Your task to perform on an android device: Go to display settings Image 0: 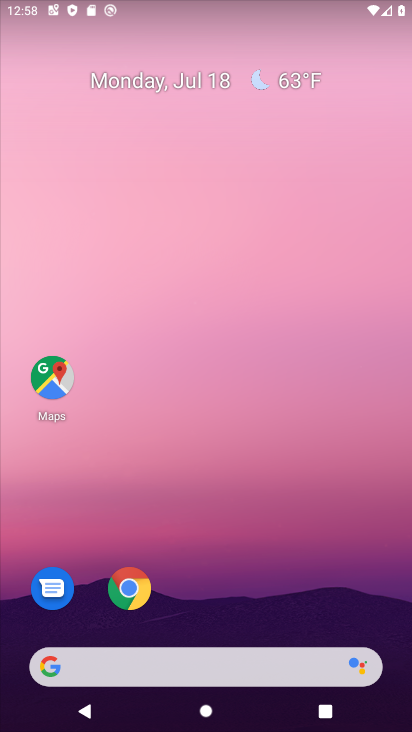
Step 0: drag from (325, 578) to (166, 97)
Your task to perform on an android device: Go to display settings Image 1: 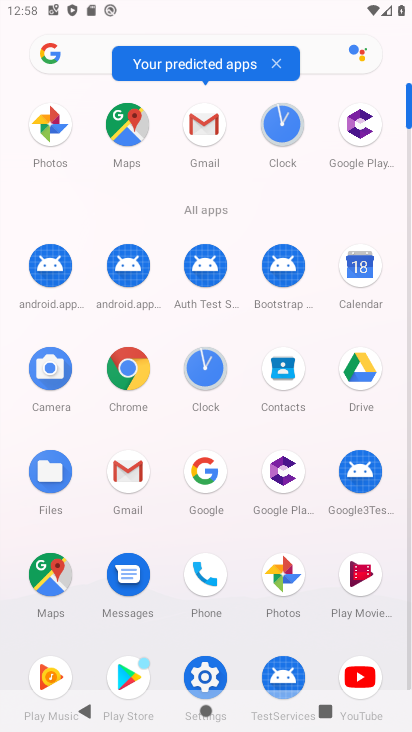
Step 1: click (202, 659)
Your task to perform on an android device: Go to display settings Image 2: 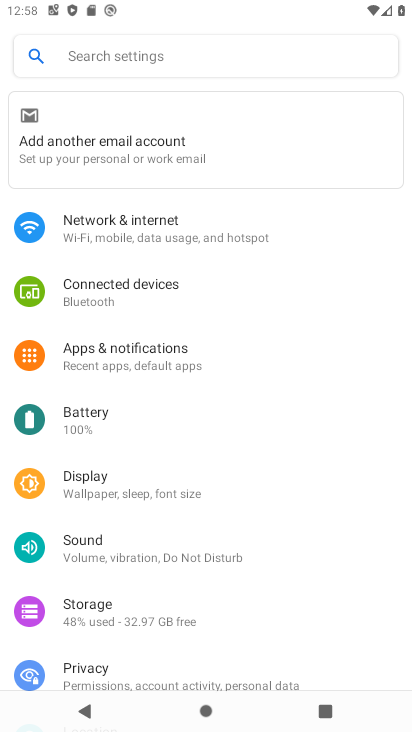
Step 2: click (76, 473)
Your task to perform on an android device: Go to display settings Image 3: 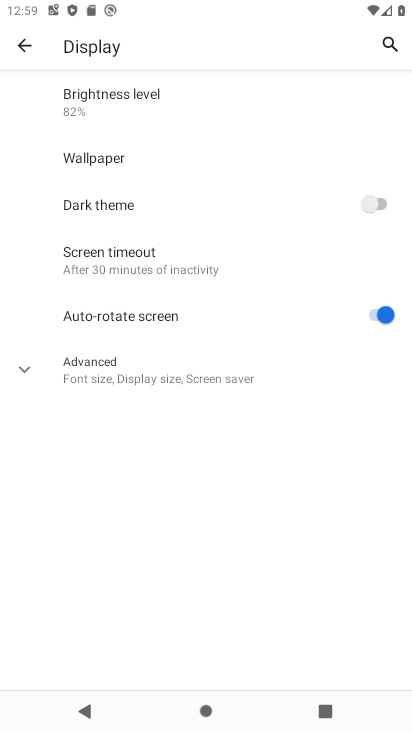
Step 3: task complete